Your task to perform on an android device: clear history in the chrome app Image 0: 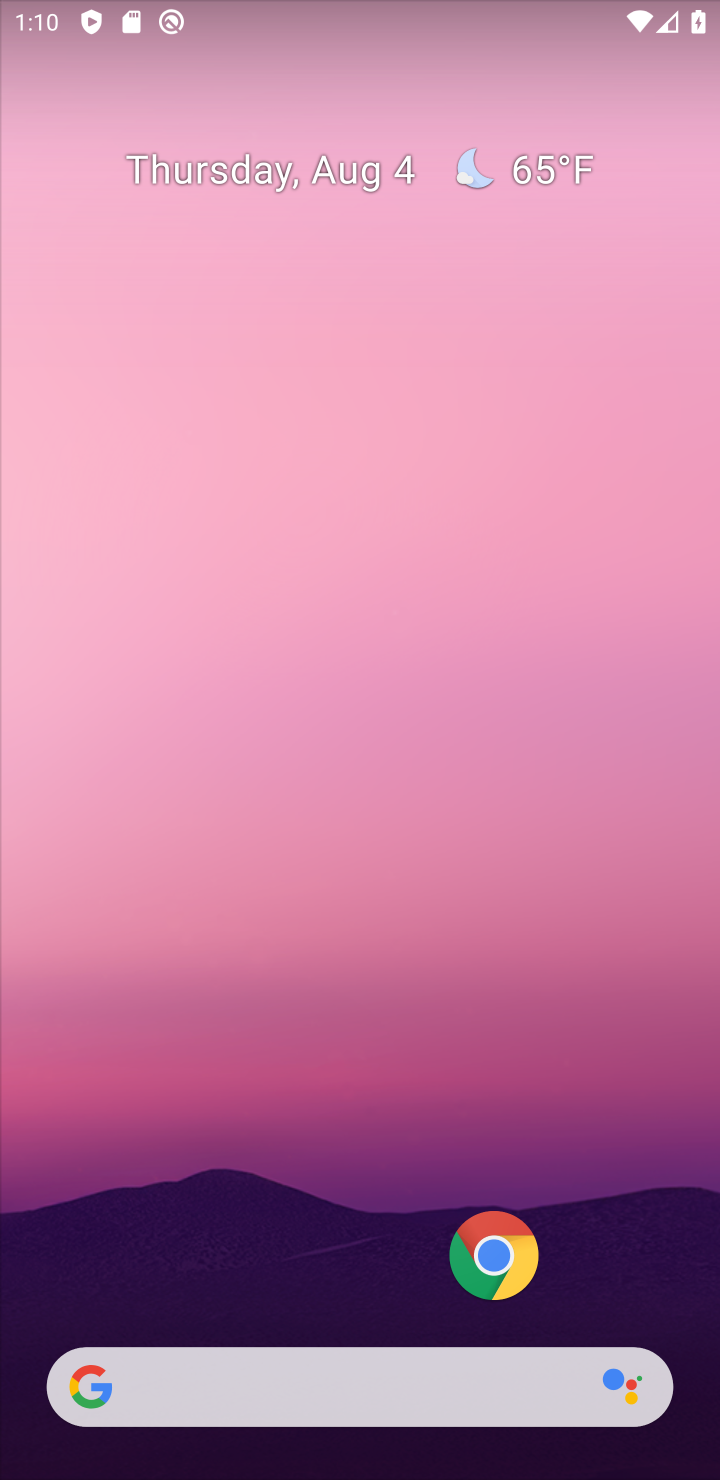
Step 0: drag from (335, 1203) to (243, 110)
Your task to perform on an android device: clear history in the chrome app Image 1: 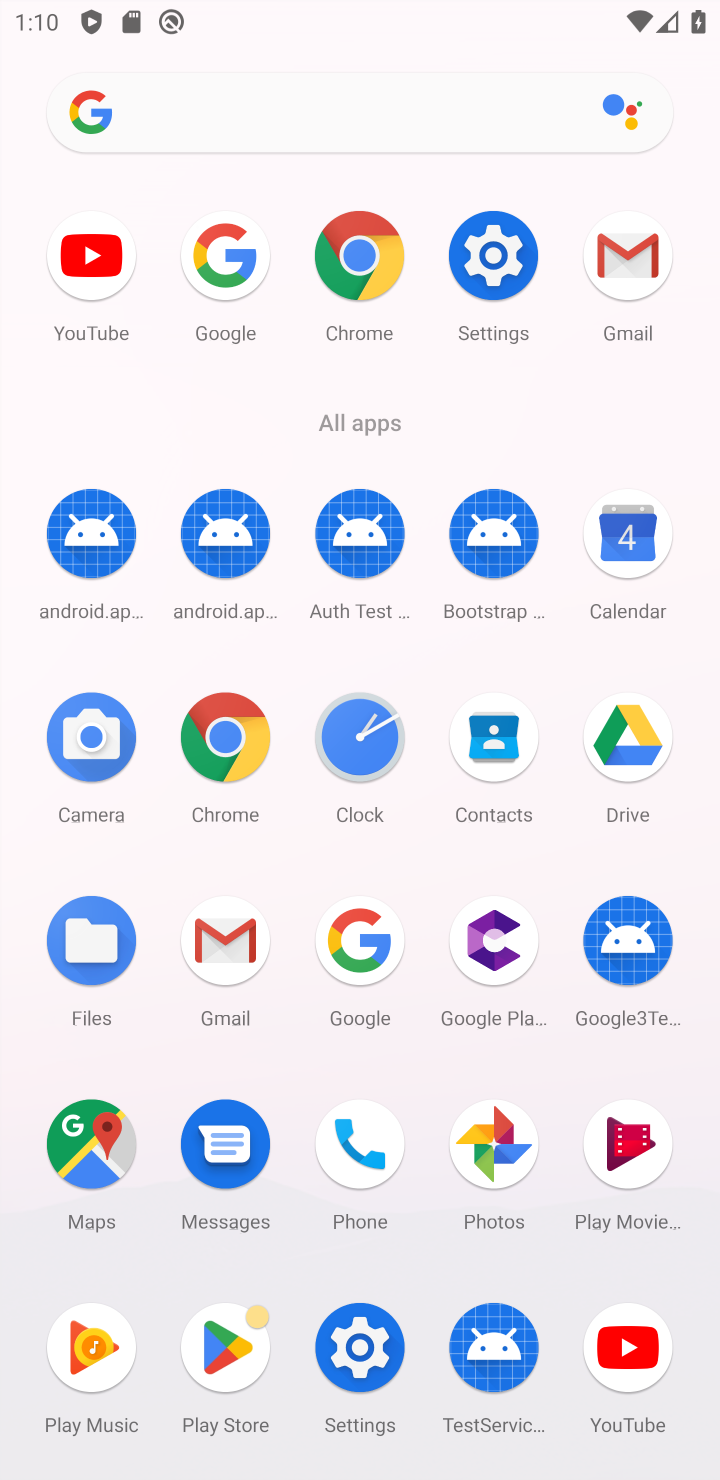
Step 1: click (340, 264)
Your task to perform on an android device: clear history in the chrome app Image 2: 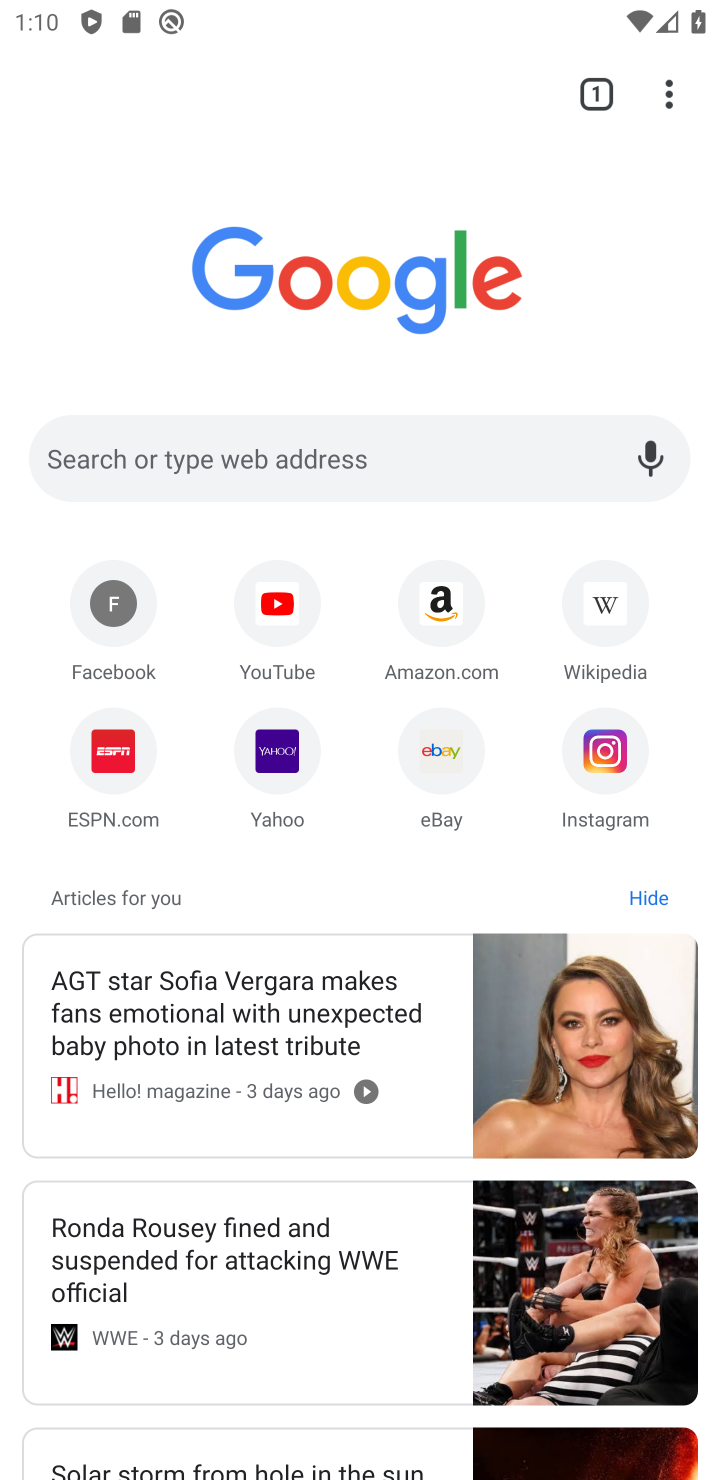
Step 2: drag from (660, 98) to (276, 567)
Your task to perform on an android device: clear history in the chrome app Image 3: 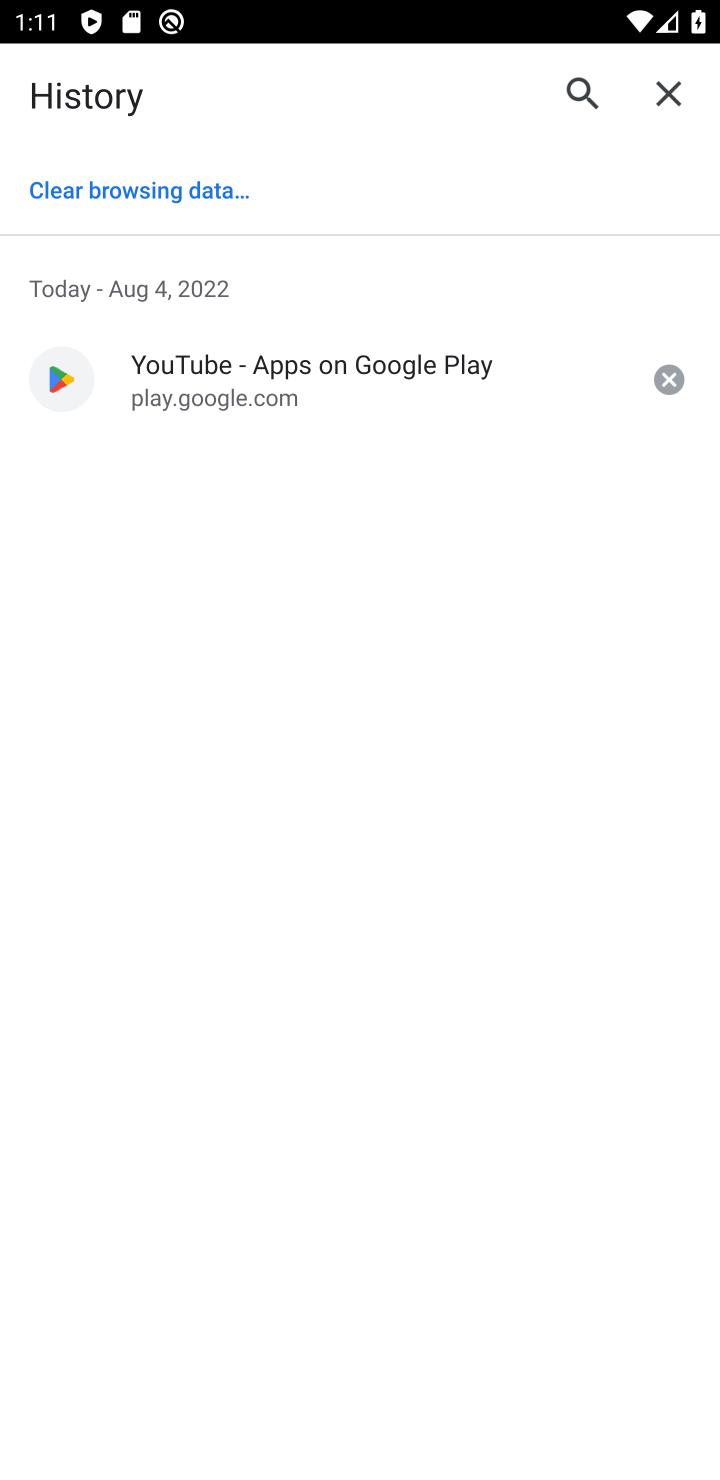
Step 3: click (88, 195)
Your task to perform on an android device: clear history in the chrome app Image 4: 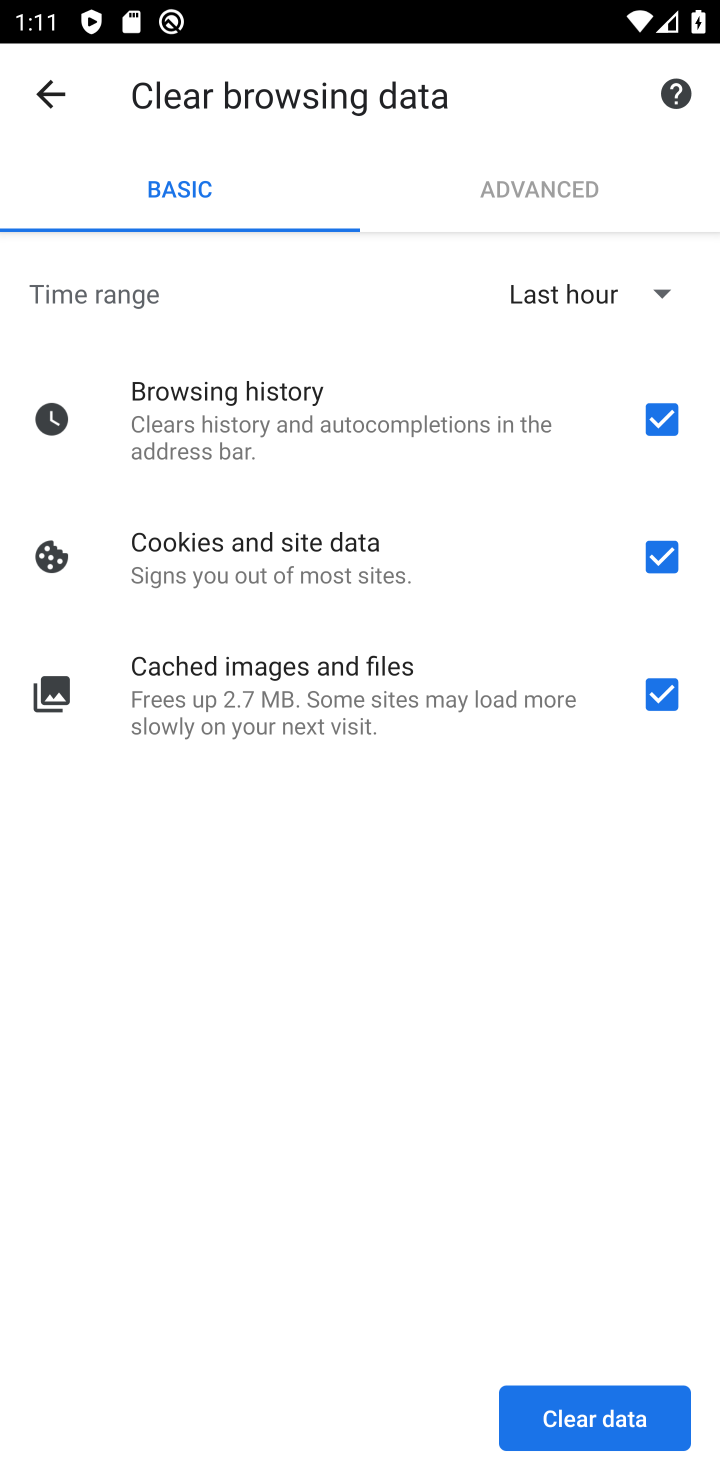
Step 4: click (666, 543)
Your task to perform on an android device: clear history in the chrome app Image 5: 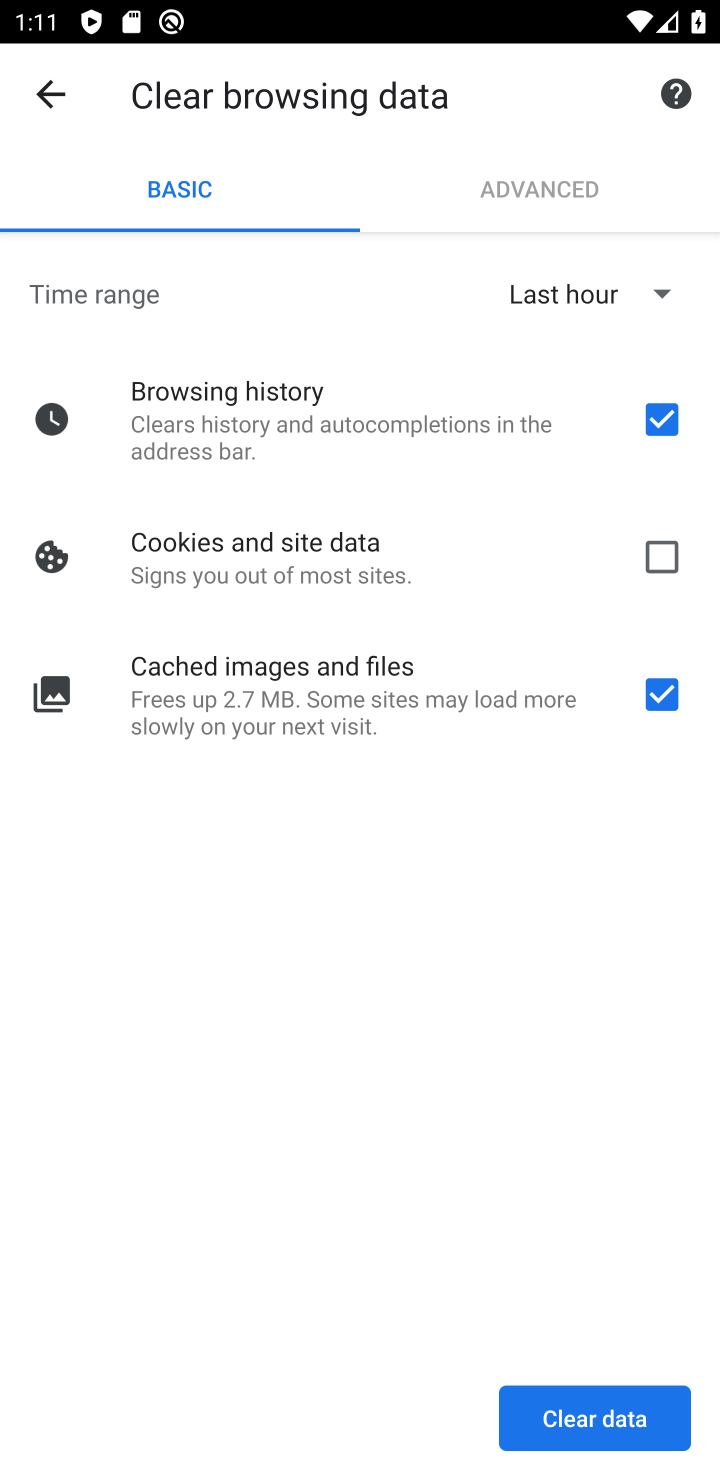
Step 5: click (665, 705)
Your task to perform on an android device: clear history in the chrome app Image 6: 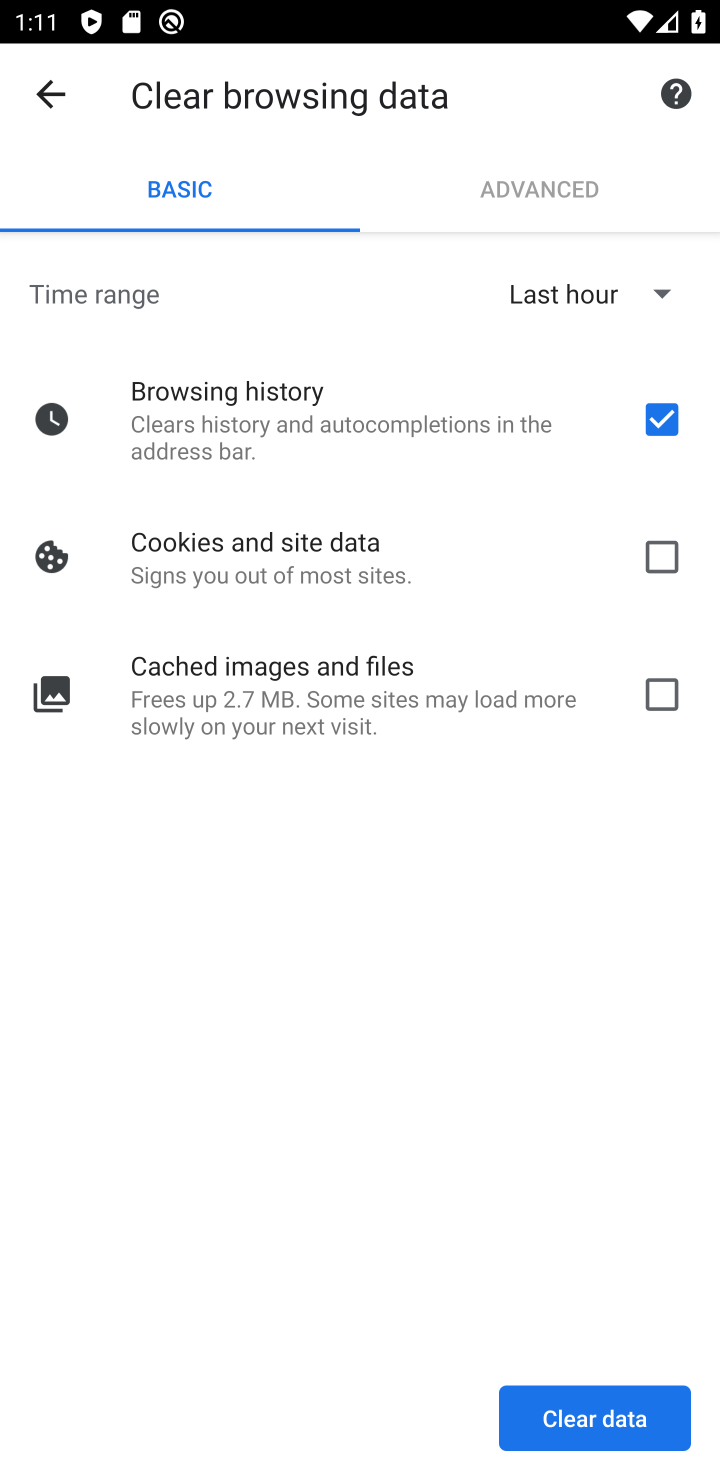
Step 6: click (577, 1427)
Your task to perform on an android device: clear history in the chrome app Image 7: 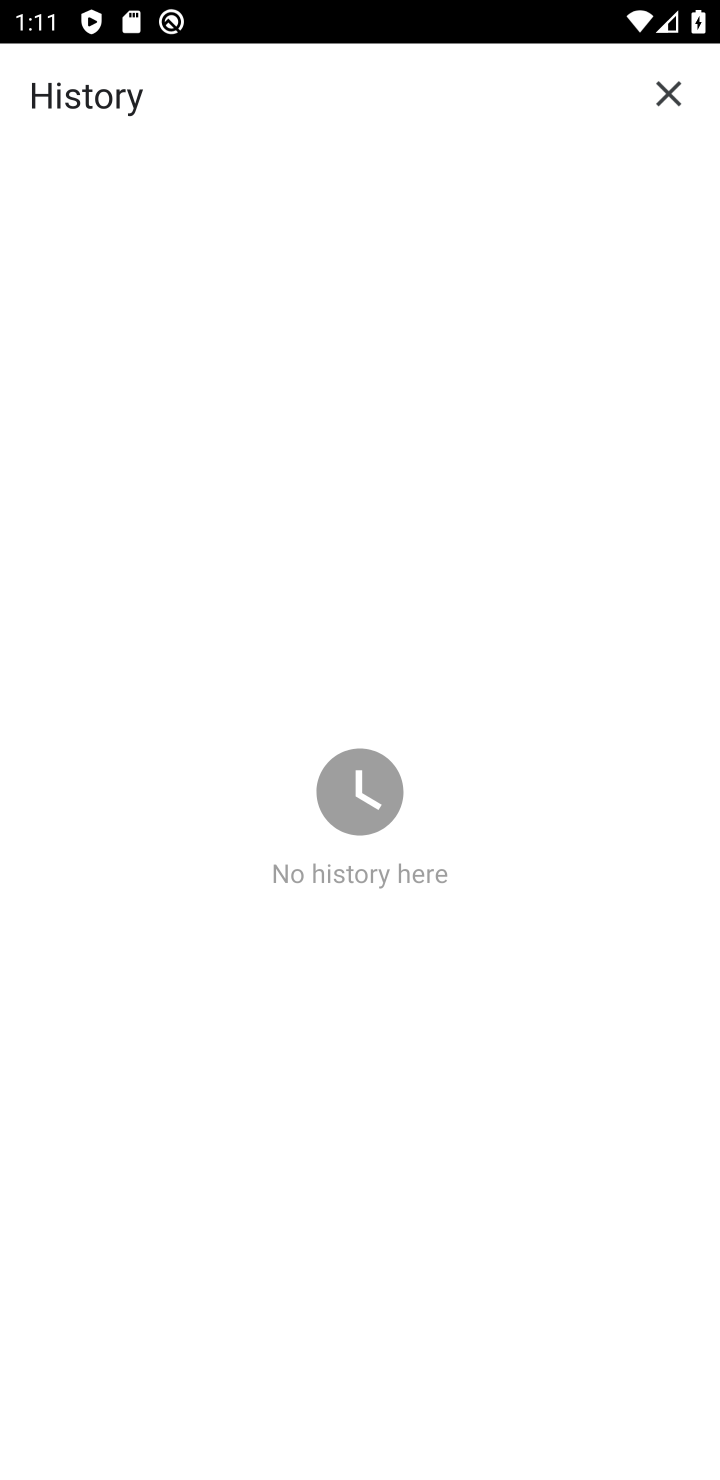
Step 7: task complete